Your task to perform on an android device: turn smart compose on in the gmail app Image 0: 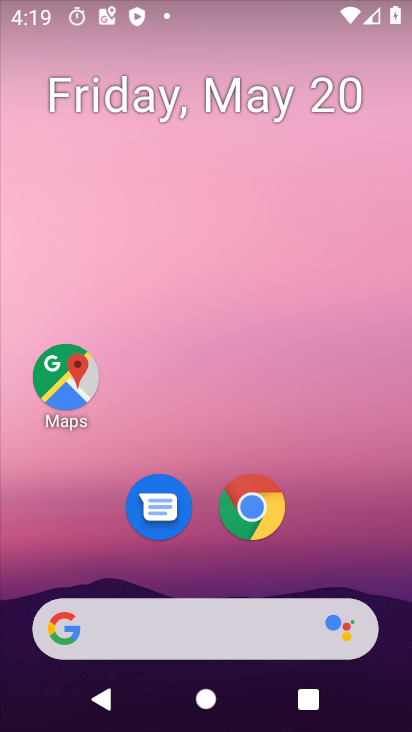
Step 0: drag from (340, 551) to (246, 153)
Your task to perform on an android device: turn smart compose on in the gmail app Image 1: 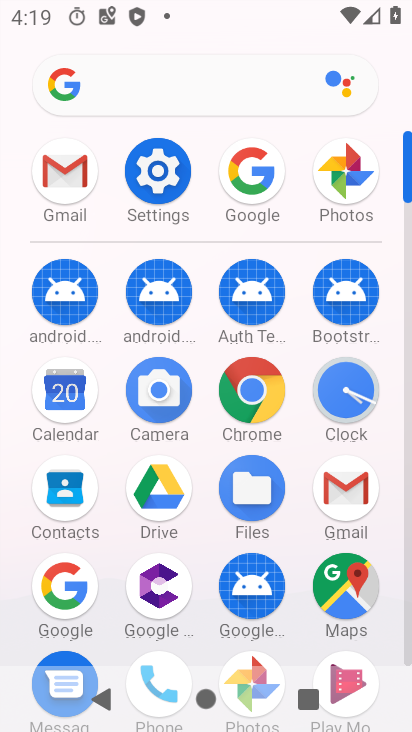
Step 1: click (65, 170)
Your task to perform on an android device: turn smart compose on in the gmail app Image 2: 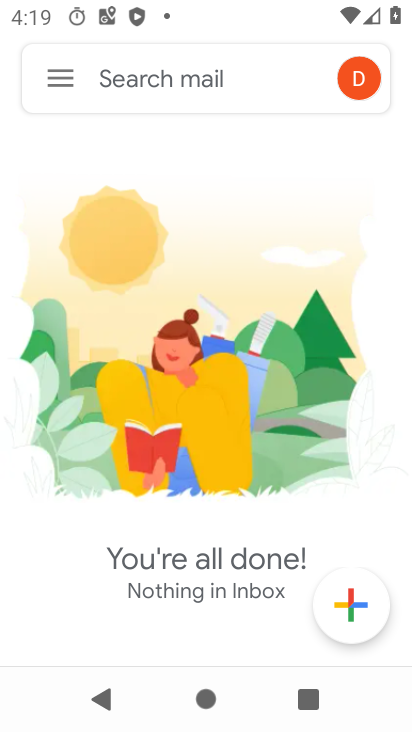
Step 2: click (62, 80)
Your task to perform on an android device: turn smart compose on in the gmail app Image 3: 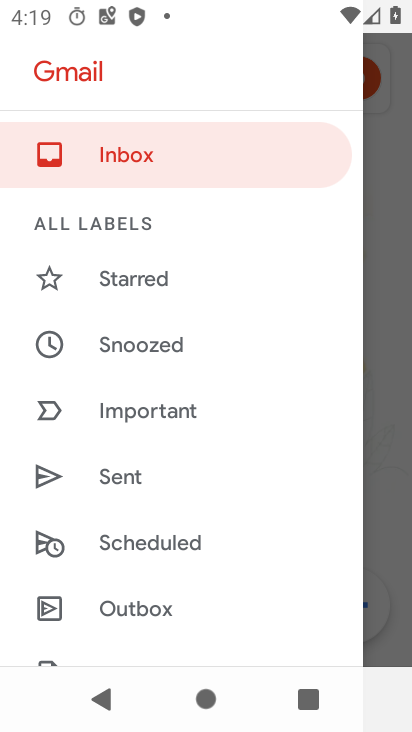
Step 3: drag from (127, 438) to (103, 297)
Your task to perform on an android device: turn smart compose on in the gmail app Image 4: 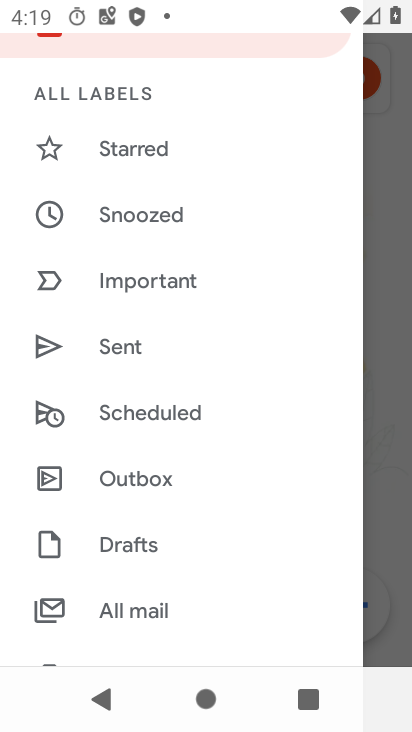
Step 4: drag from (135, 448) to (91, 315)
Your task to perform on an android device: turn smart compose on in the gmail app Image 5: 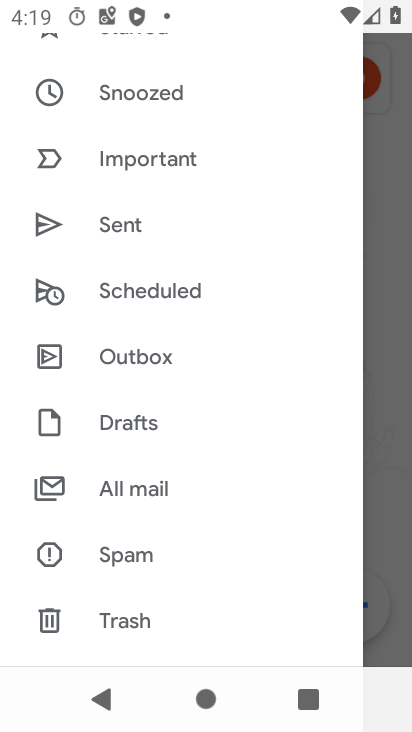
Step 5: drag from (137, 440) to (130, 356)
Your task to perform on an android device: turn smart compose on in the gmail app Image 6: 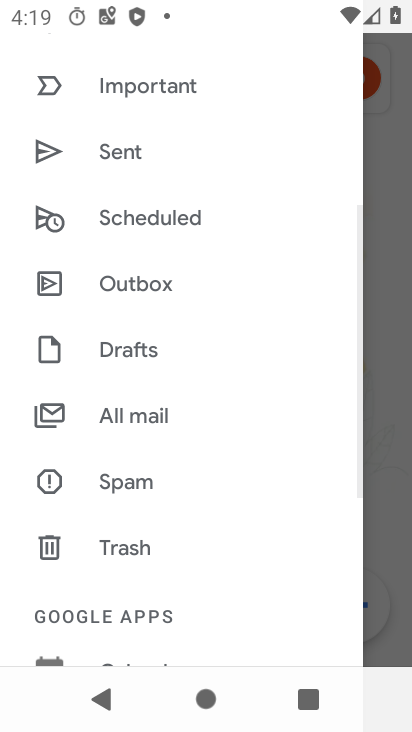
Step 6: drag from (141, 500) to (171, 402)
Your task to perform on an android device: turn smart compose on in the gmail app Image 7: 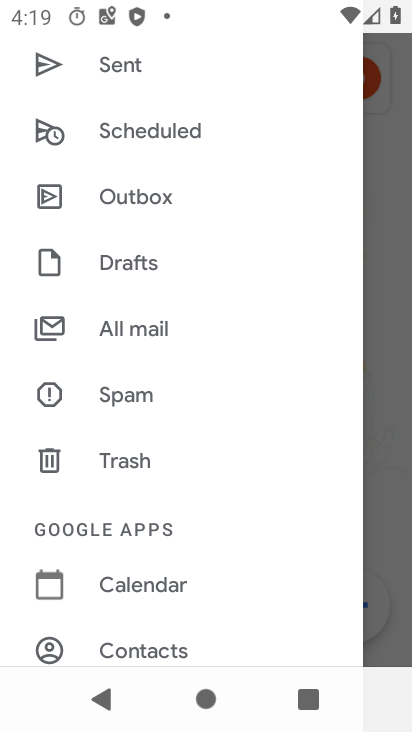
Step 7: drag from (142, 507) to (114, 396)
Your task to perform on an android device: turn smart compose on in the gmail app Image 8: 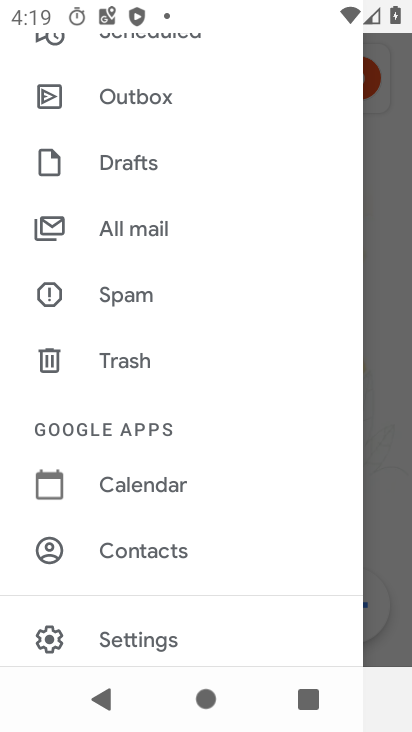
Step 8: drag from (132, 570) to (130, 443)
Your task to perform on an android device: turn smart compose on in the gmail app Image 9: 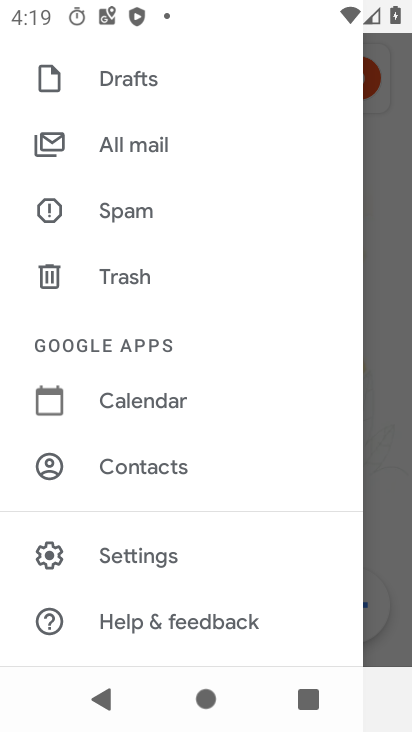
Step 9: click (149, 555)
Your task to perform on an android device: turn smart compose on in the gmail app Image 10: 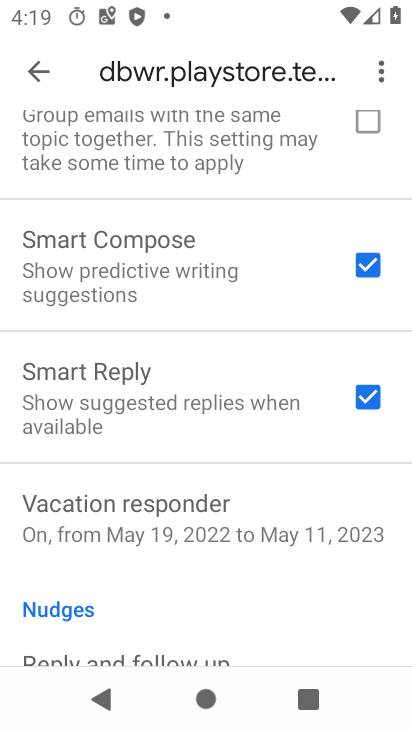
Step 10: task complete